Your task to perform on an android device: turn on location history Image 0: 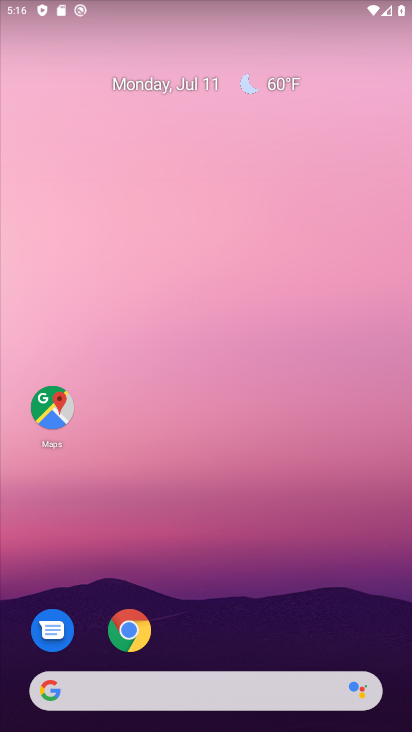
Step 0: drag from (176, 539) to (176, 217)
Your task to perform on an android device: turn on location history Image 1: 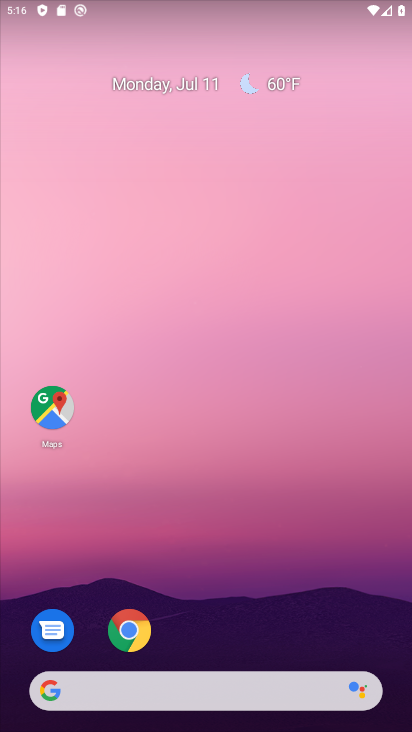
Step 1: drag from (191, 638) to (238, 8)
Your task to perform on an android device: turn on location history Image 2: 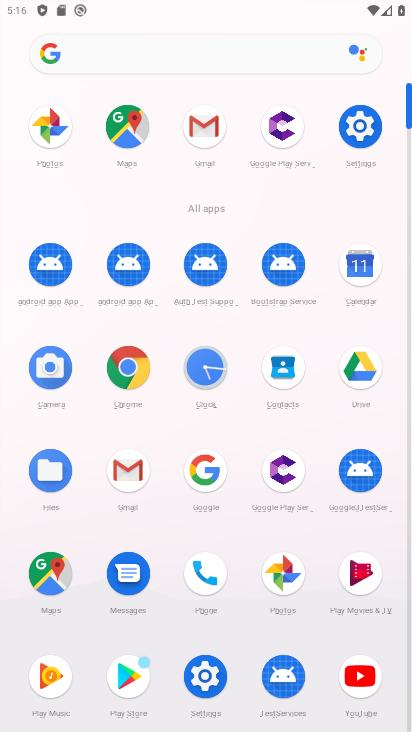
Step 2: click (359, 140)
Your task to perform on an android device: turn on location history Image 3: 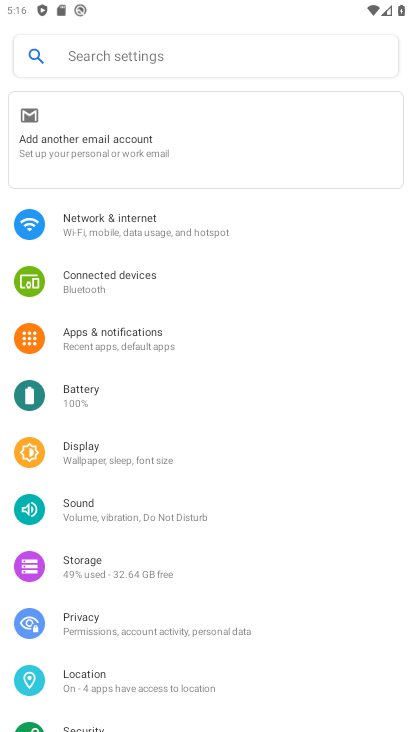
Step 3: click (106, 670)
Your task to perform on an android device: turn on location history Image 4: 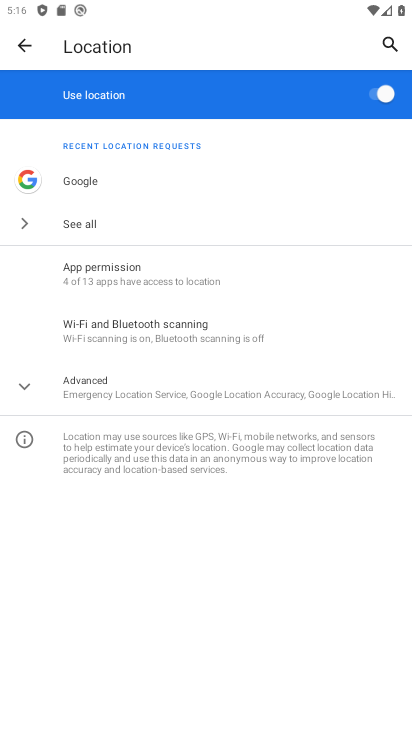
Step 4: click (82, 386)
Your task to perform on an android device: turn on location history Image 5: 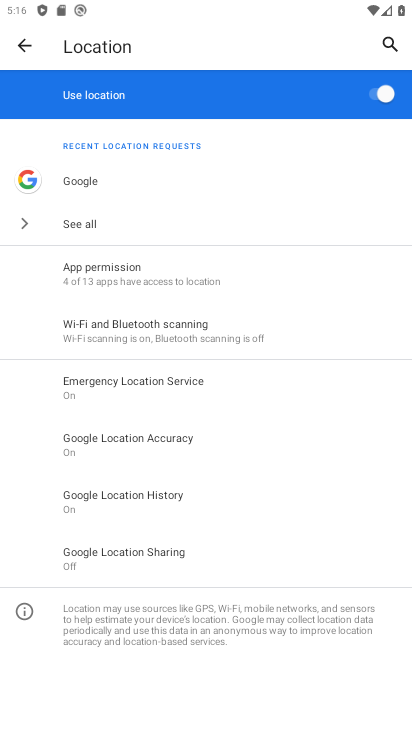
Step 5: click (82, 386)
Your task to perform on an android device: turn on location history Image 6: 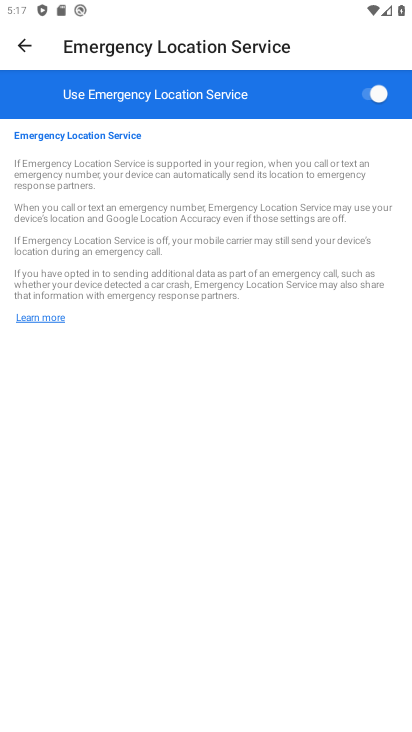
Step 6: click (20, 41)
Your task to perform on an android device: turn on location history Image 7: 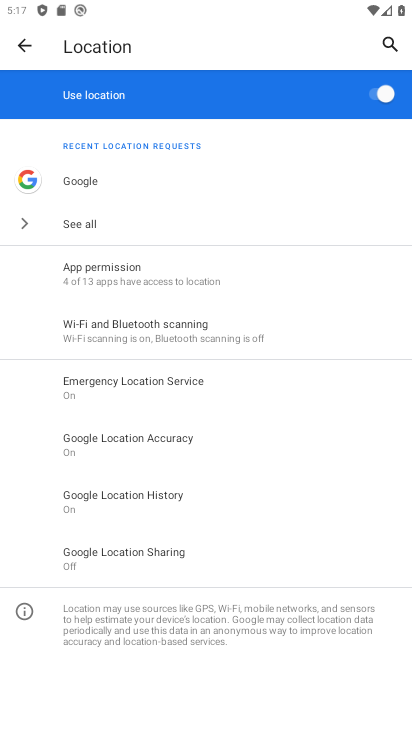
Step 7: click (150, 496)
Your task to perform on an android device: turn on location history Image 8: 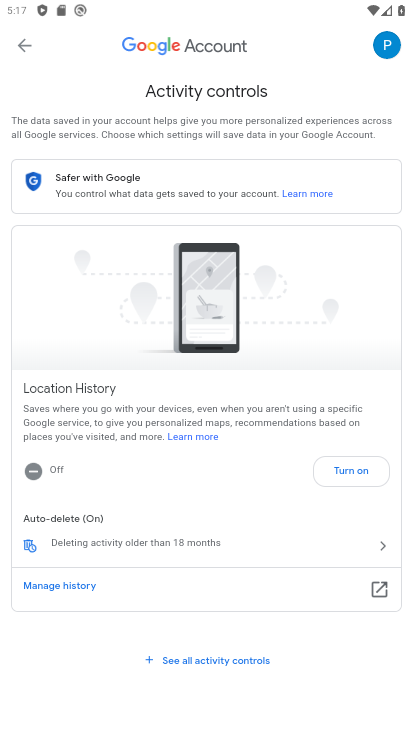
Step 8: click (337, 465)
Your task to perform on an android device: turn on location history Image 9: 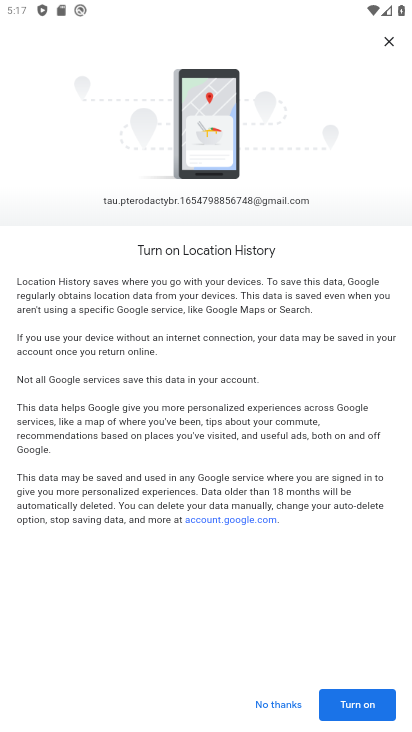
Step 9: click (323, 717)
Your task to perform on an android device: turn on location history Image 10: 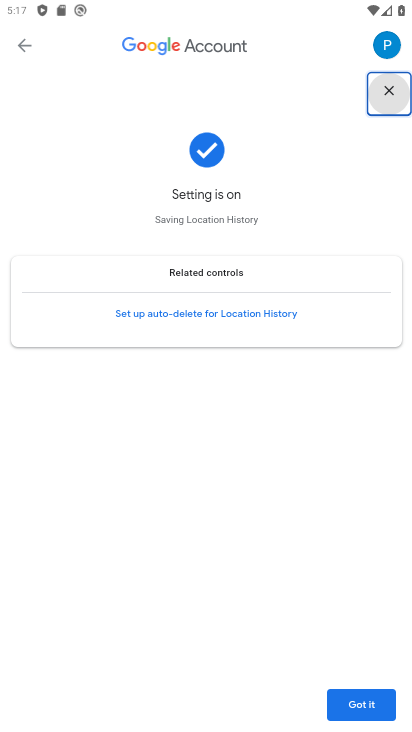
Step 10: click (336, 714)
Your task to perform on an android device: turn on location history Image 11: 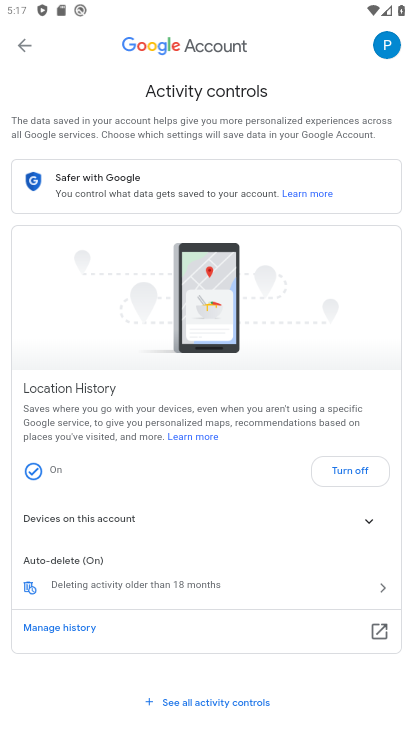
Step 11: task complete